Your task to perform on an android device: change keyboard looks Image 0: 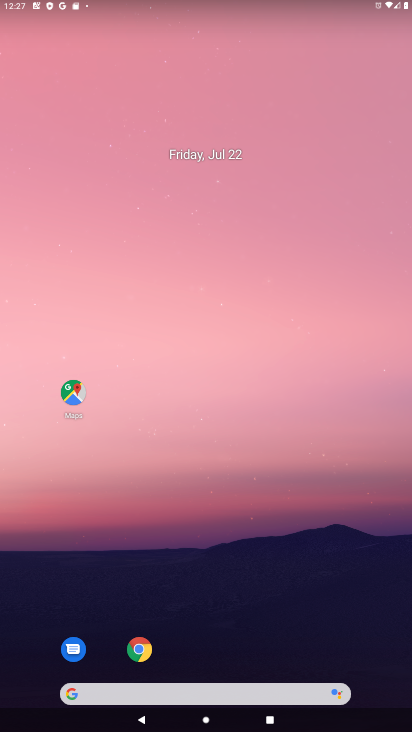
Step 0: drag from (294, 636) to (264, 134)
Your task to perform on an android device: change keyboard looks Image 1: 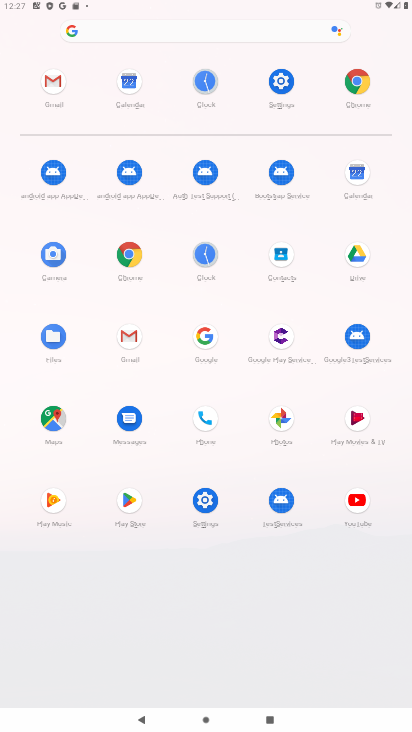
Step 1: click (279, 83)
Your task to perform on an android device: change keyboard looks Image 2: 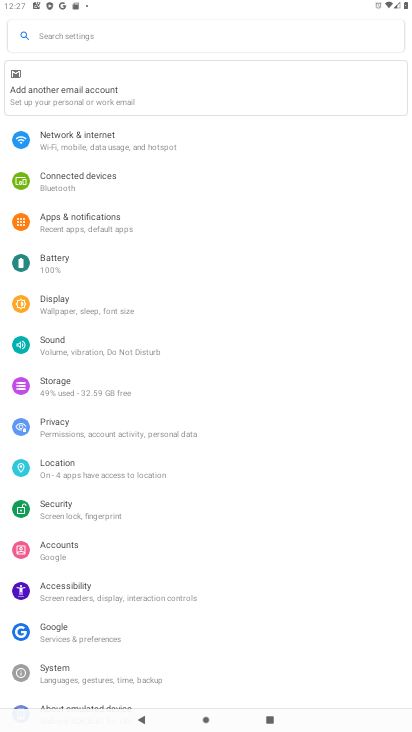
Step 2: drag from (138, 625) to (156, 249)
Your task to perform on an android device: change keyboard looks Image 3: 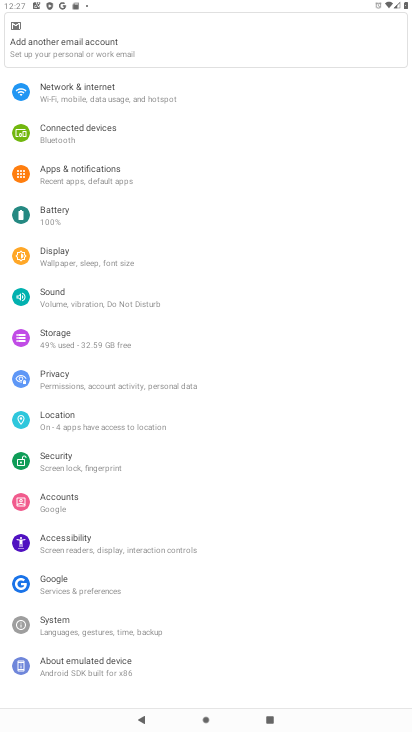
Step 3: click (74, 624)
Your task to perform on an android device: change keyboard looks Image 4: 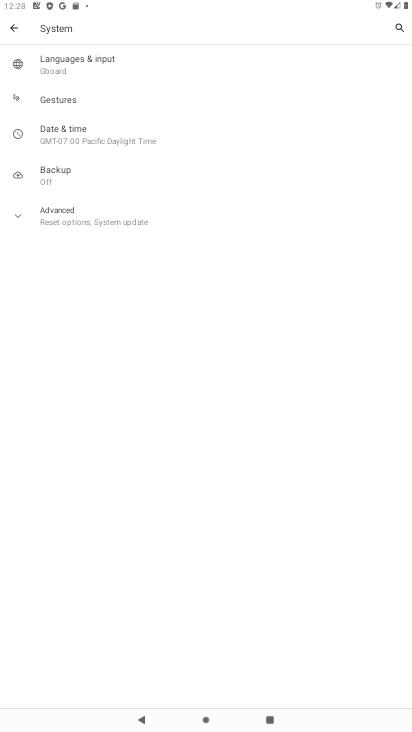
Step 4: click (95, 66)
Your task to perform on an android device: change keyboard looks Image 5: 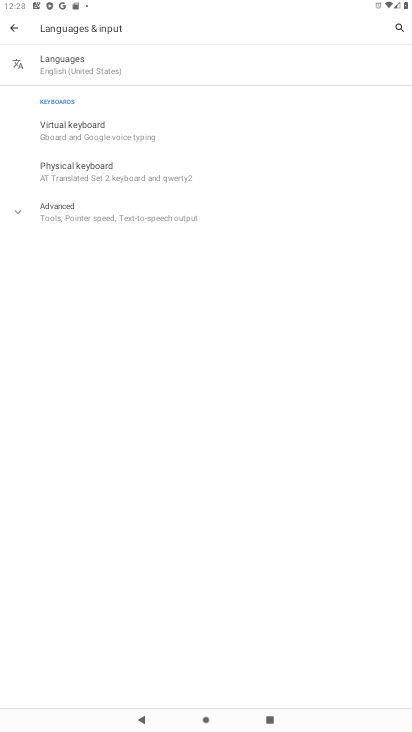
Step 5: click (63, 128)
Your task to perform on an android device: change keyboard looks Image 6: 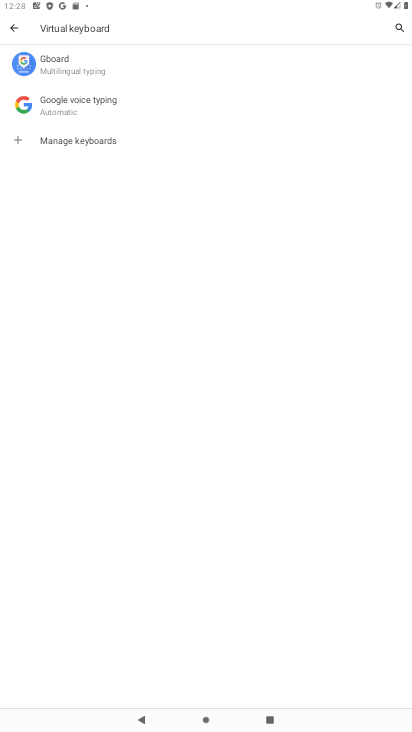
Step 6: click (86, 71)
Your task to perform on an android device: change keyboard looks Image 7: 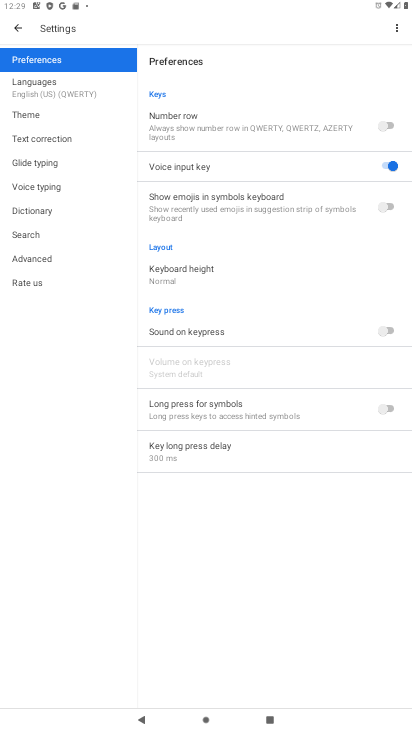
Step 7: click (30, 112)
Your task to perform on an android device: change keyboard looks Image 8: 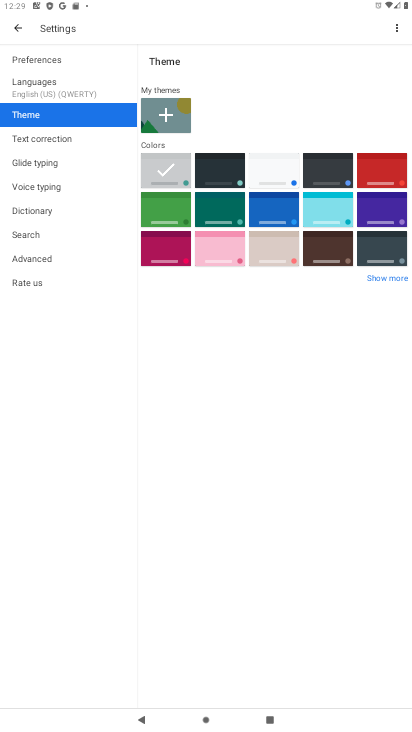
Step 8: click (283, 163)
Your task to perform on an android device: change keyboard looks Image 9: 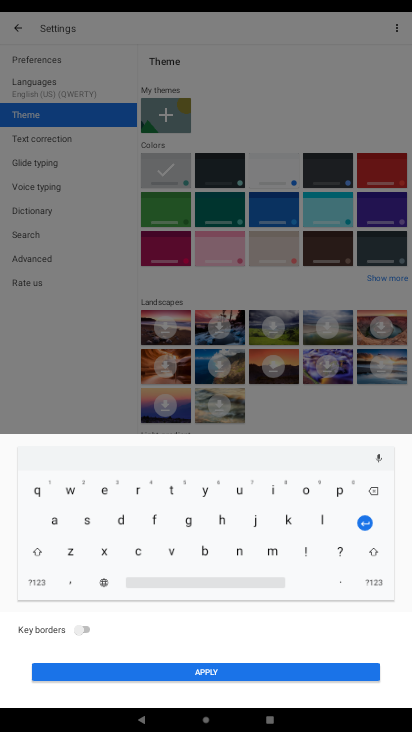
Step 9: click (216, 666)
Your task to perform on an android device: change keyboard looks Image 10: 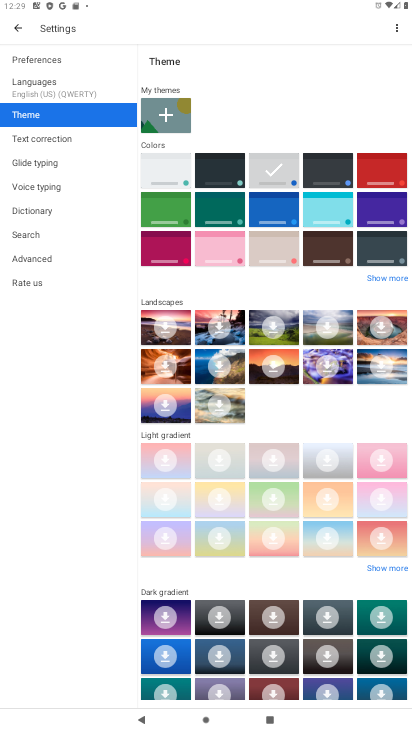
Step 10: task complete